Your task to perform on an android device: show emergency info Image 0: 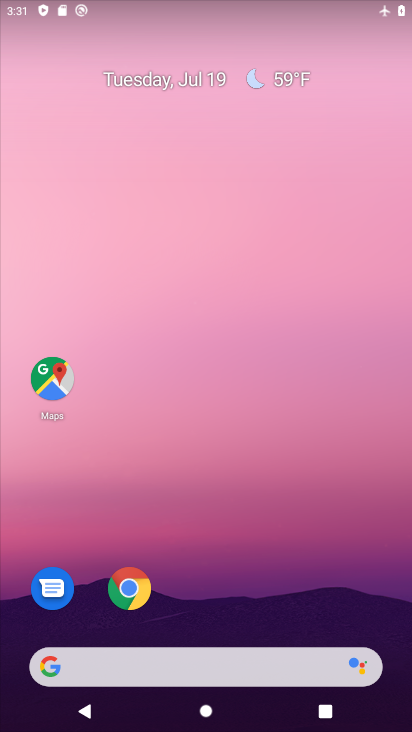
Step 0: press home button
Your task to perform on an android device: show emergency info Image 1: 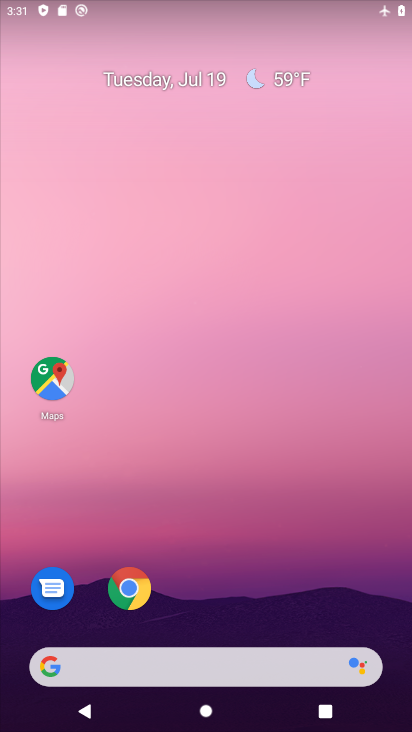
Step 1: drag from (242, 626) to (252, 164)
Your task to perform on an android device: show emergency info Image 2: 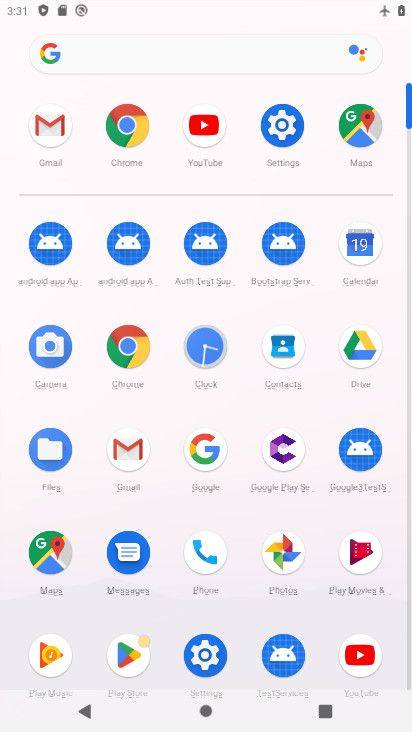
Step 2: click (293, 123)
Your task to perform on an android device: show emergency info Image 3: 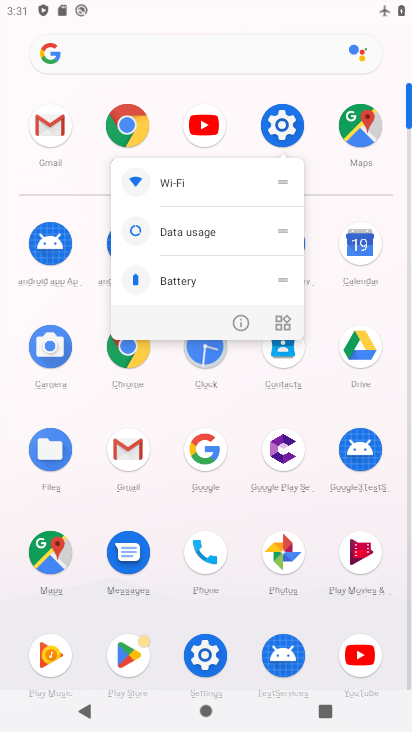
Step 3: click (293, 123)
Your task to perform on an android device: show emergency info Image 4: 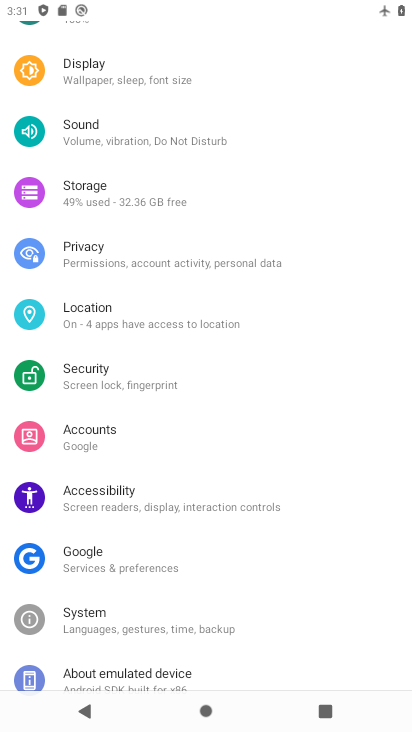
Step 4: click (135, 672)
Your task to perform on an android device: show emergency info Image 5: 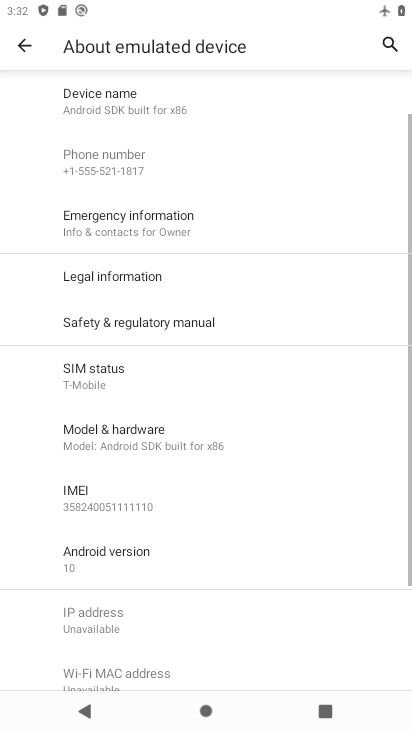
Step 5: click (110, 221)
Your task to perform on an android device: show emergency info Image 6: 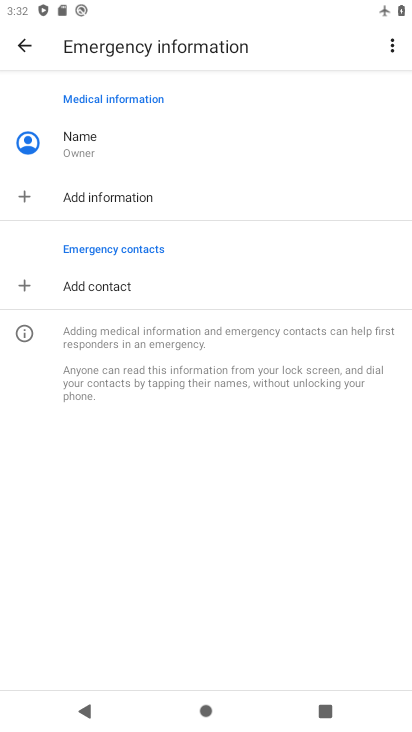
Step 6: task complete